Your task to perform on an android device: turn off translation in the chrome app Image 0: 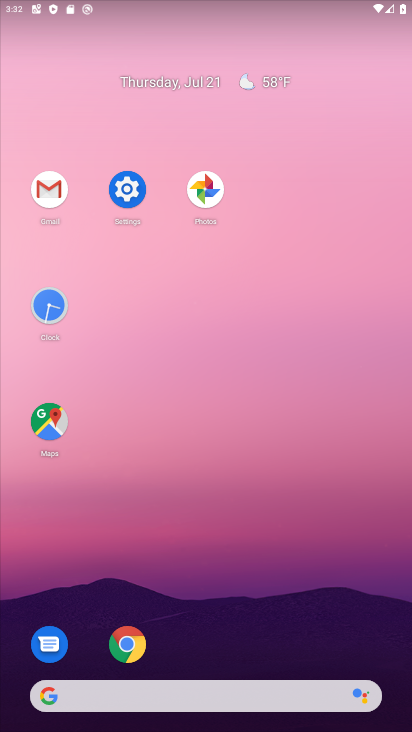
Step 0: click (122, 627)
Your task to perform on an android device: turn off translation in the chrome app Image 1: 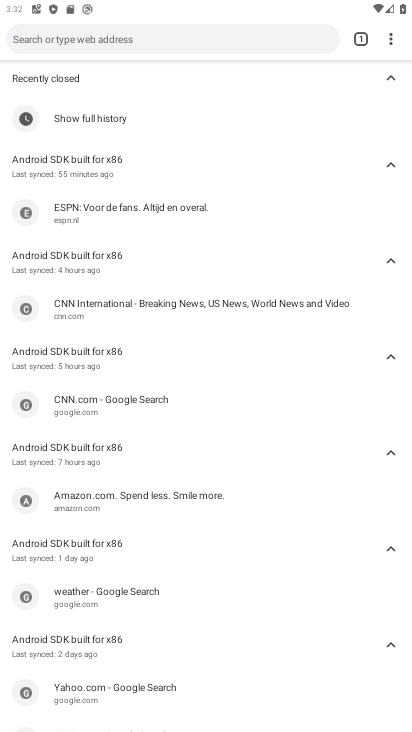
Step 1: click (394, 42)
Your task to perform on an android device: turn off translation in the chrome app Image 2: 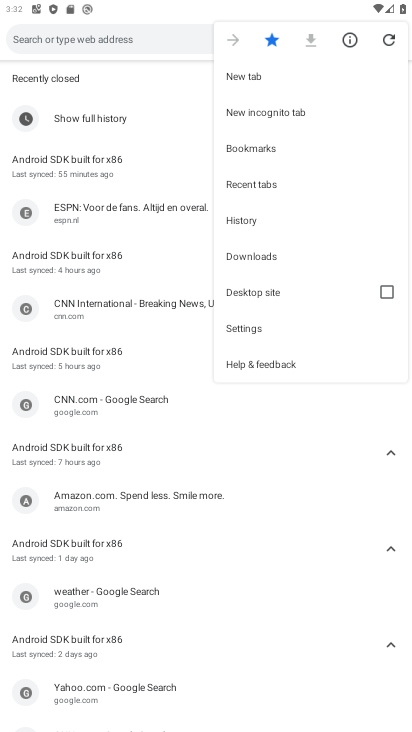
Step 2: click (291, 323)
Your task to perform on an android device: turn off translation in the chrome app Image 3: 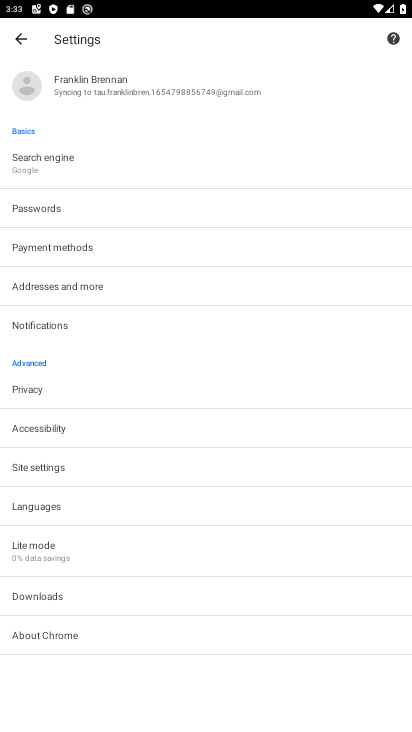
Step 3: click (106, 496)
Your task to perform on an android device: turn off translation in the chrome app Image 4: 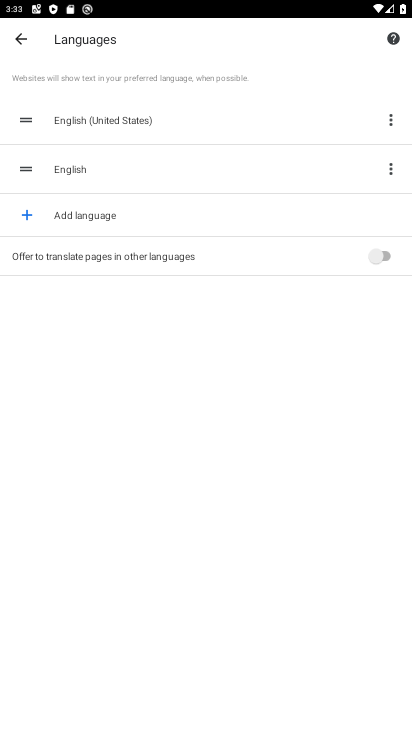
Step 4: task complete